Your task to perform on an android device: turn on the 12-hour format for clock Image 0: 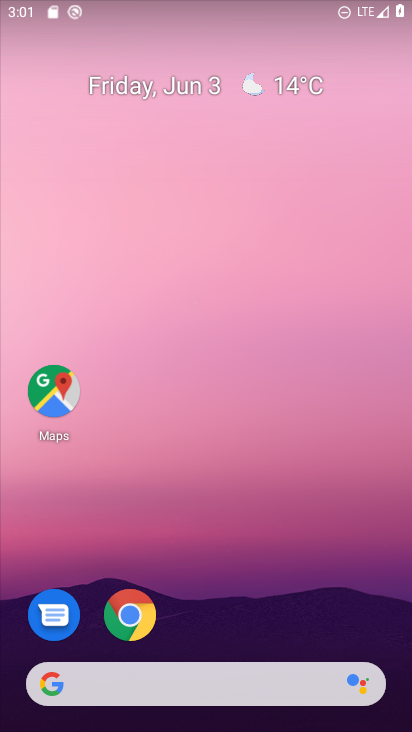
Step 0: drag from (204, 654) to (306, 60)
Your task to perform on an android device: turn on the 12-hour format for clock Image 1: 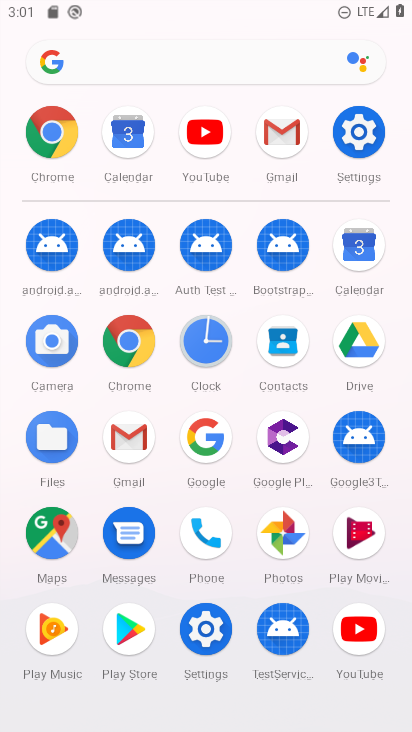
Step 1: click (191, 328)
Your task to perform on an android device: turn on the 12-hour format for clock Image 2: 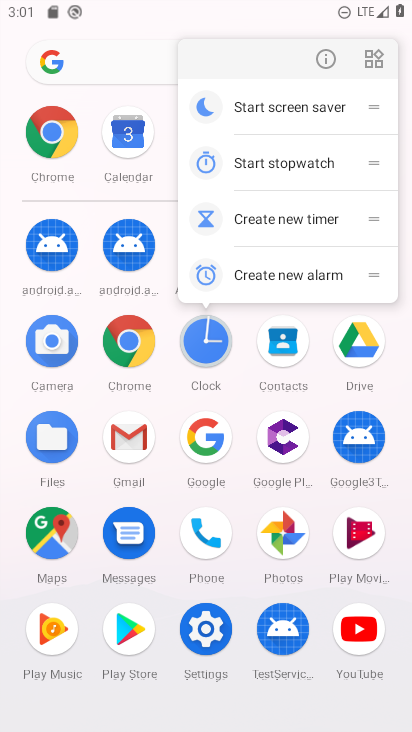
Step 2: click (334, 53)
Your task to perform on an android device: turn on the 12-hour format for clock Image 3: 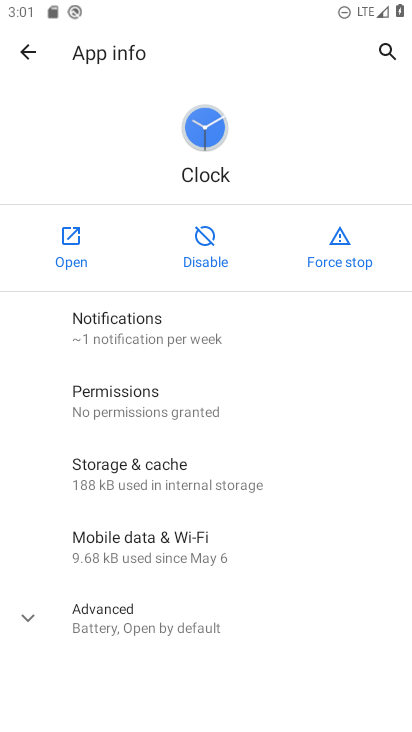
Step 3: click (65, 252)
Your task to perform on an android device: turn on the 12-hour format for clock Image 4: 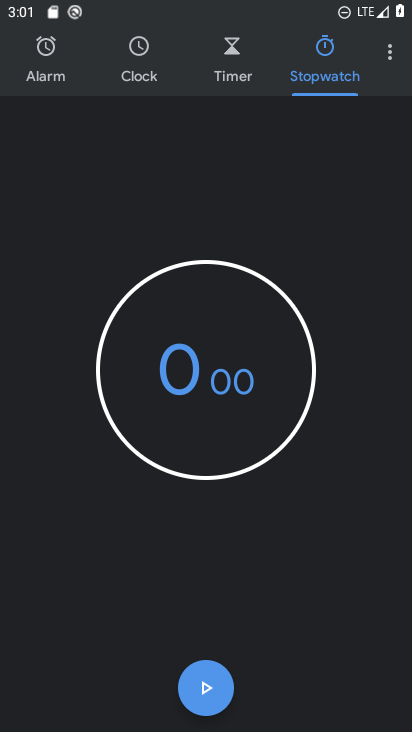
Step 4: click (399, 54)
Your task to perform on an android device: turn on the 12-hour format for clock Image 5: 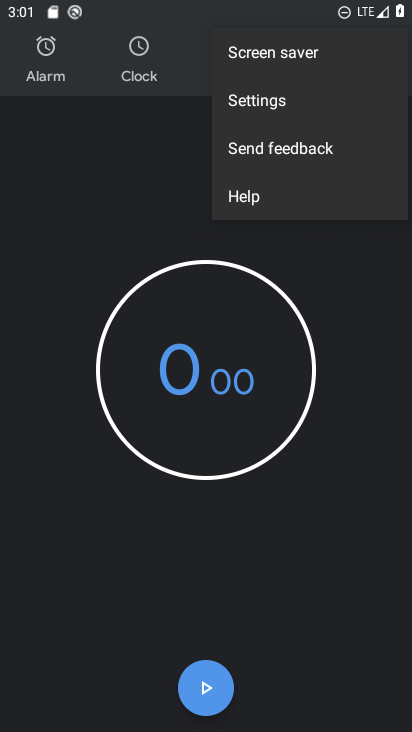
Step 5: click (278, 88)
Your task to perform on an android device: turn on the 12-hour format for clock Image 6: 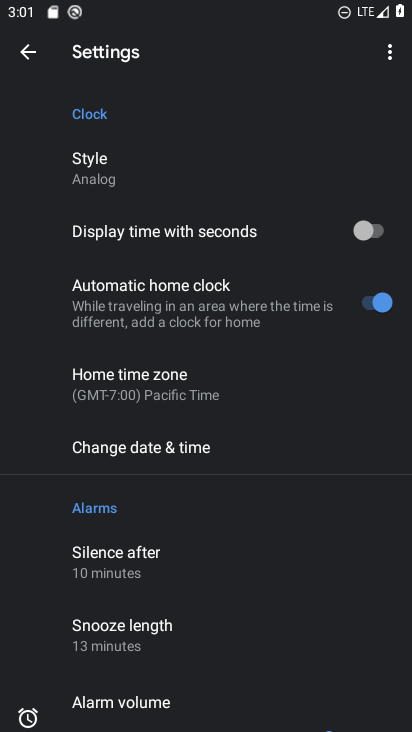
Step 6: click (161, 443)
Your task to perform on an android device: turn on the 12-hour format for clock Image 7: 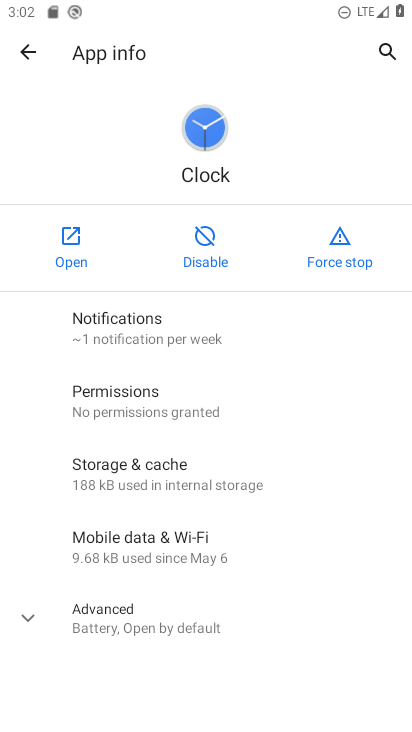
Step 7: task complete